Your task to perform on an android device: What's on my calendar today? Image 0: 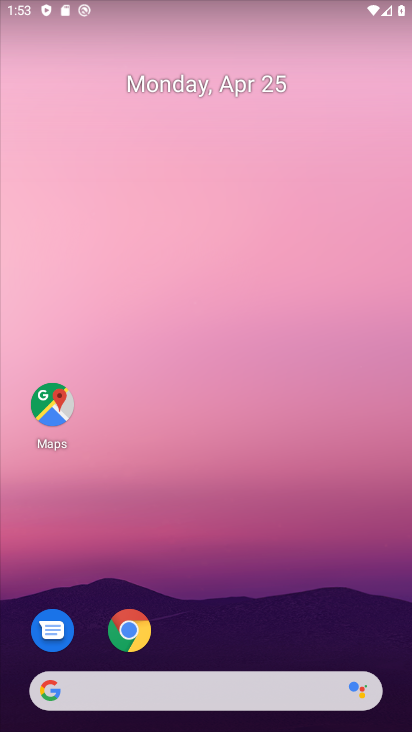
Step 0: click (170, 88)
Your task to perform on an android device: What's on my calendar today? Image 1: 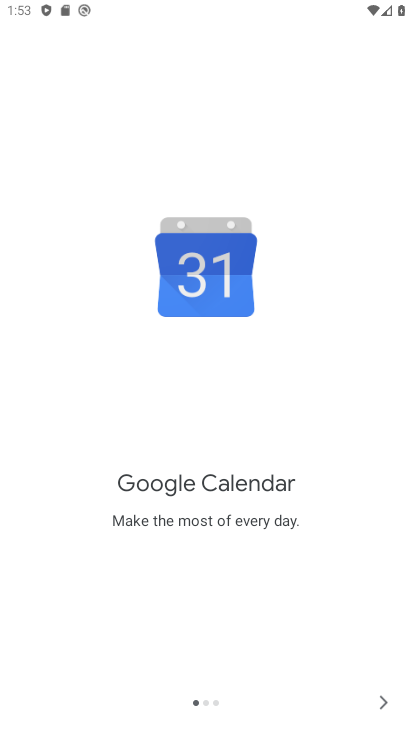
Step 1: click (380, 701)
Your task to perform on an android device: What's on my calendar today? Image 2: 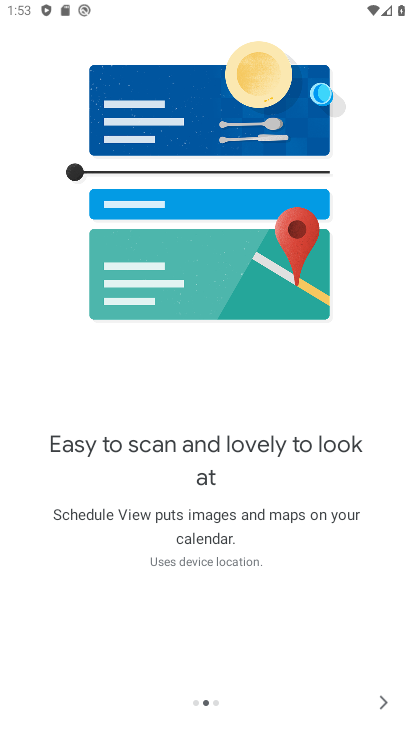
Step 2: click (380, 701)
Your task to perform on an android device: What's on my calendar today? Image 3: 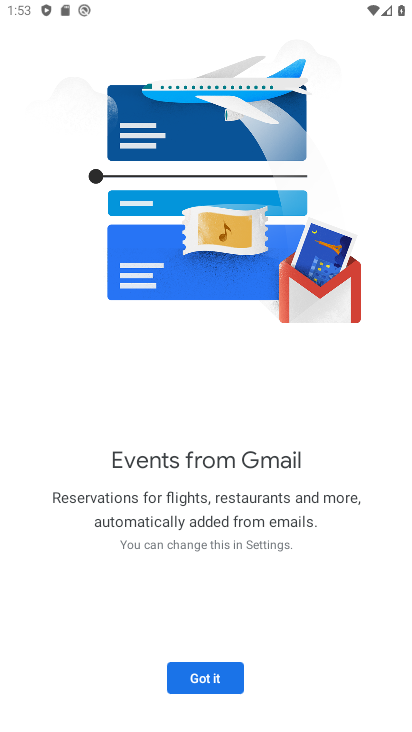
Step 3: click (237, 672)
Your task to perform on an android device: What's on my calendar today? Image 4: 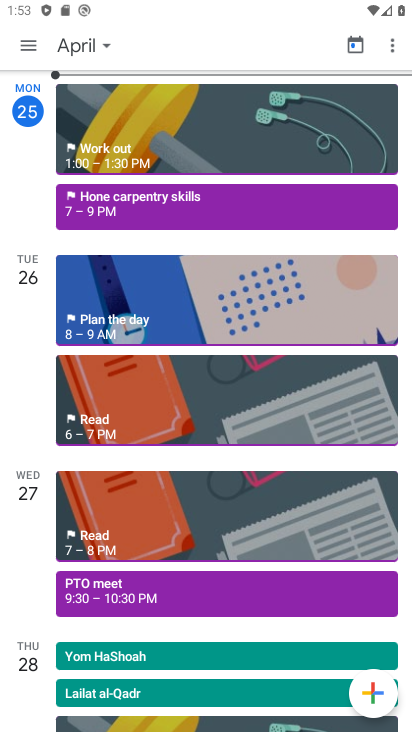
Step 4: task complete